Your task to perform on an android device: turn on notifications settings in the gmail app Image 0: 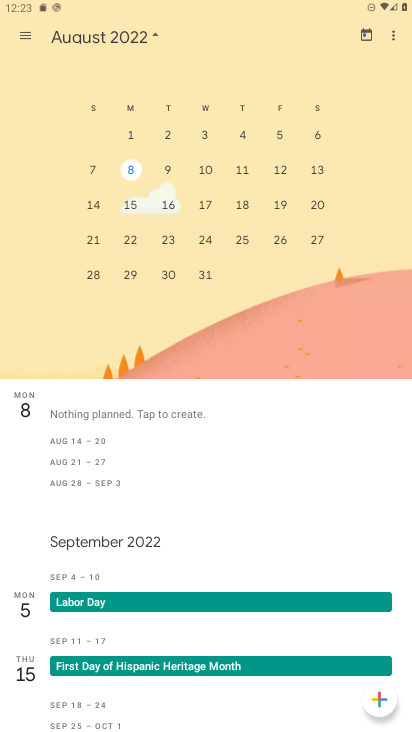
Step 0: press home button
Your task to perform on an android device: turn on notifications settings in the gmail app Image 1: 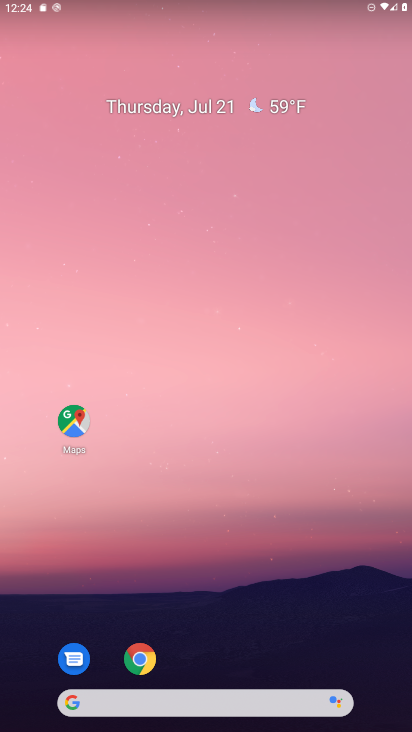
Step 1: drag from (47, 541) to (202, 130)
Your task to perform on an android device: turn on notifications settings in the gmail app Image 2: 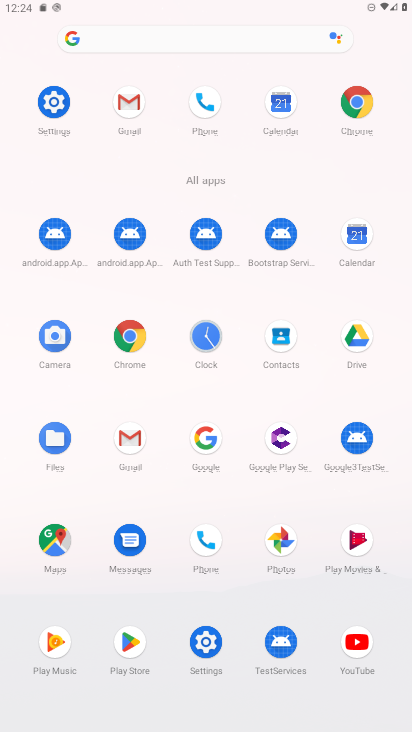
Step 2: click (196, 641)
Your task to perform on an android device: turn on notifications settings in the gmail app Image 3: 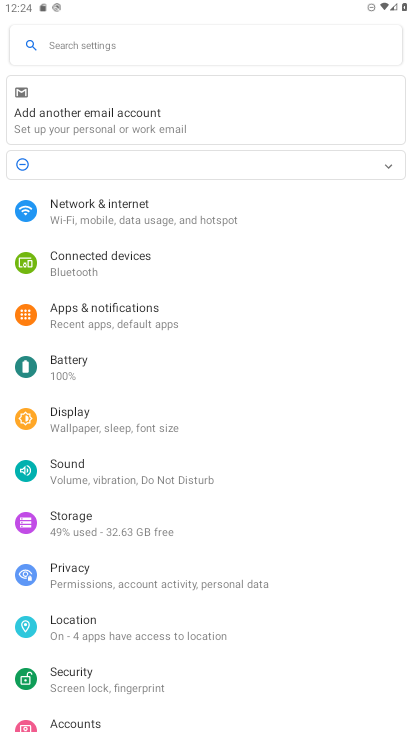
Step 3: click (150, 305)
Your task to perform on an android device: turn on notifications settings in the gmail app Image 4: 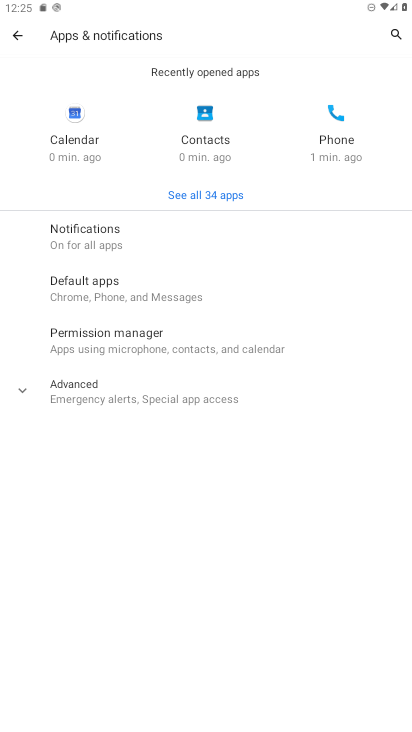
Step 4: click (123, 231)
Your task to perform on an android device: turn on notifications settings in the gmail app Image 5: 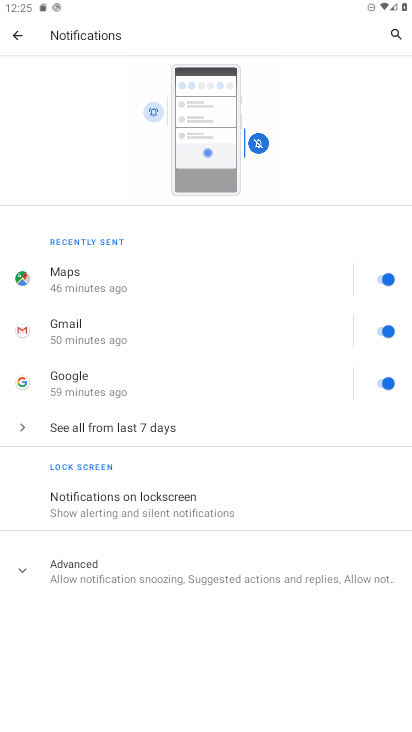
Step 5: click (101, 321)
Your task to perform on an android device: turn on notifications settings in the gmail app Image 6: 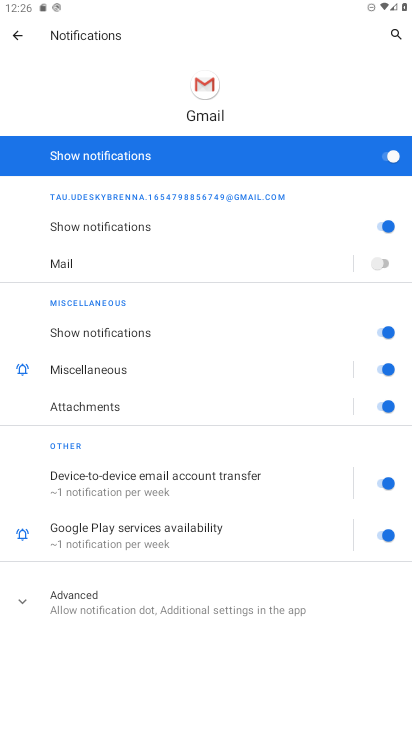
Step 6: task complete